Your task to perform on an android device: refresh tabs in the chrome app Image 0: 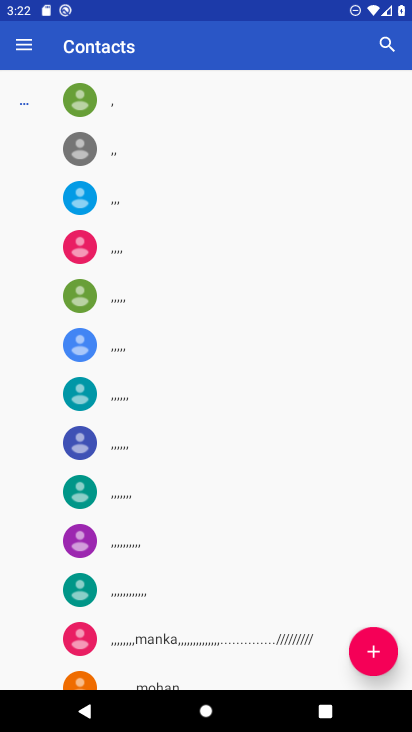
Step 0: press home button
Your task to perform on an android device: refresh tabs in the chrome app Image 1: 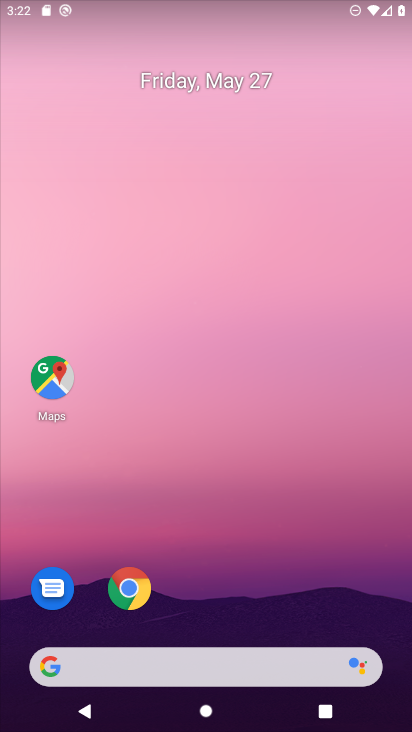
Step 1: click (142, 581)
Your task to perform on an android device: refresh tabs in the chrome app Image 2: 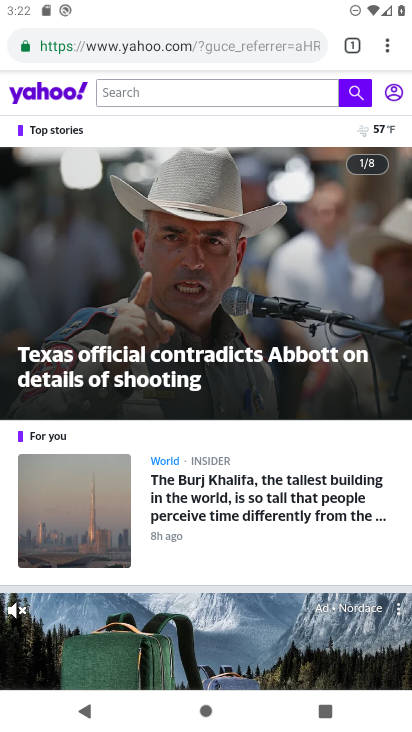
Step 2: click (395, 35)
Your task to perform on an android device: refresh tabs in the chrome app Image 3: 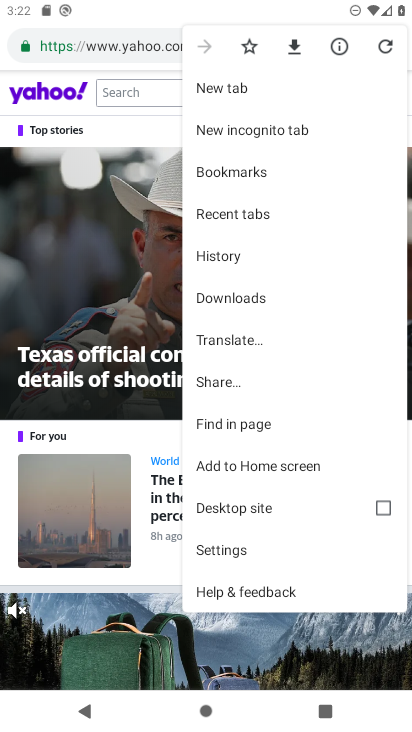
Step 3: click (395, 35)
Your task to perform on an android device: refresh tabs in the chrome app Image 4: 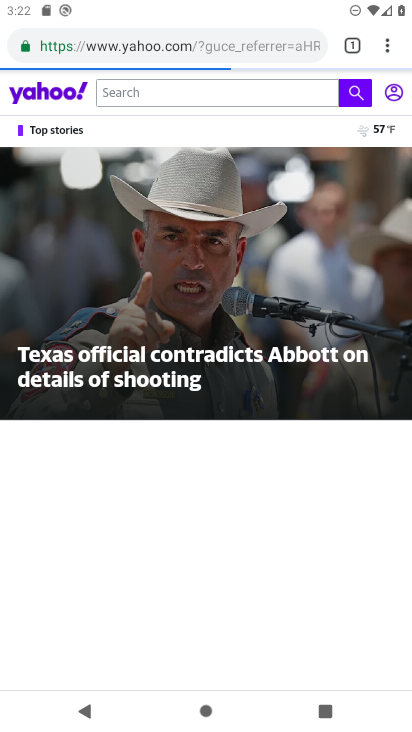
Step 4: task complete